Your task to perform on an android device: open app "ColorNote Notepad Notes" (install if not already installed) and go to login screen Image 0: 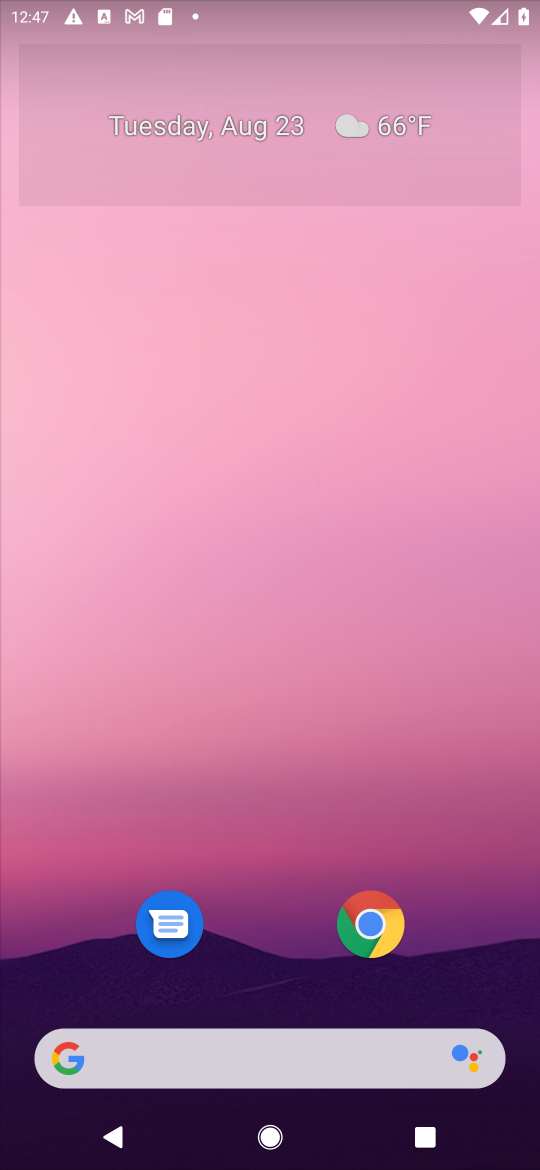
Step 0: press home button
Your task to perform on an android device: open app "ColorNote Notepad Notes" (install if not already installed) and go to login screen Image 1: 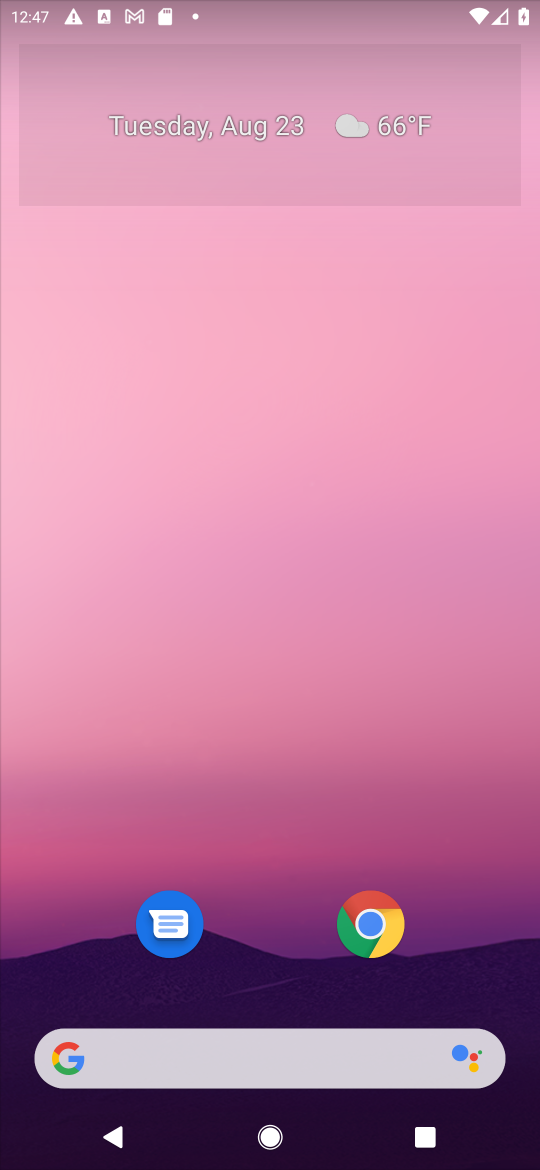
Step 1: drag from (455, 971) to (426, 155)
Your task to perform on an android device: open app "ColorNote Notepad Notes" (install if not already installed) and go to login screen Image 2: 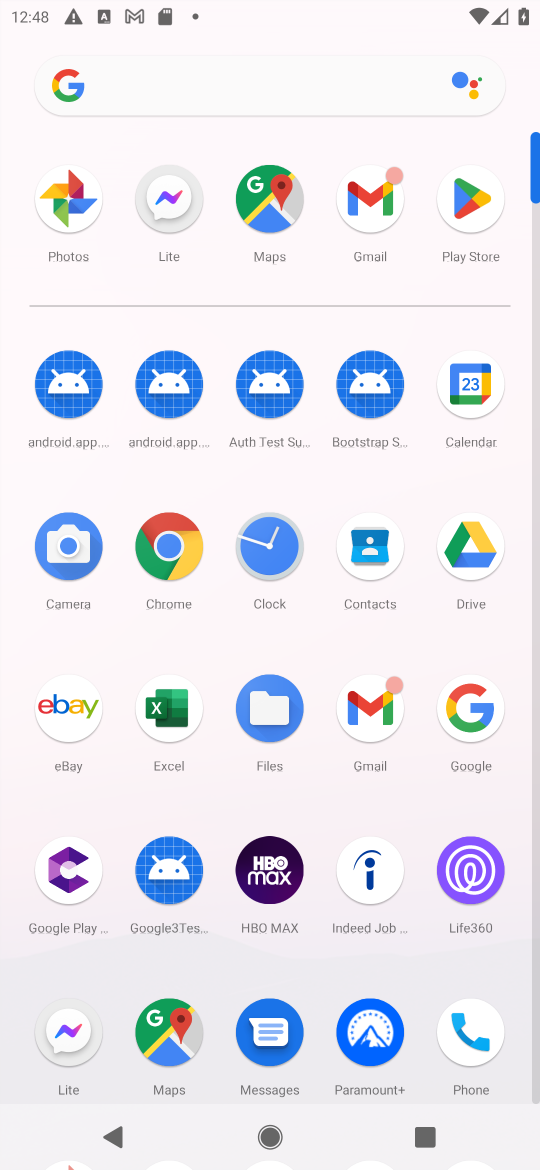
Step 2: click (471, 207)
Your task to perform on an android device: open app "ColorNote Notepad Notes" (install if not already installed) and go to login screen Image 3: 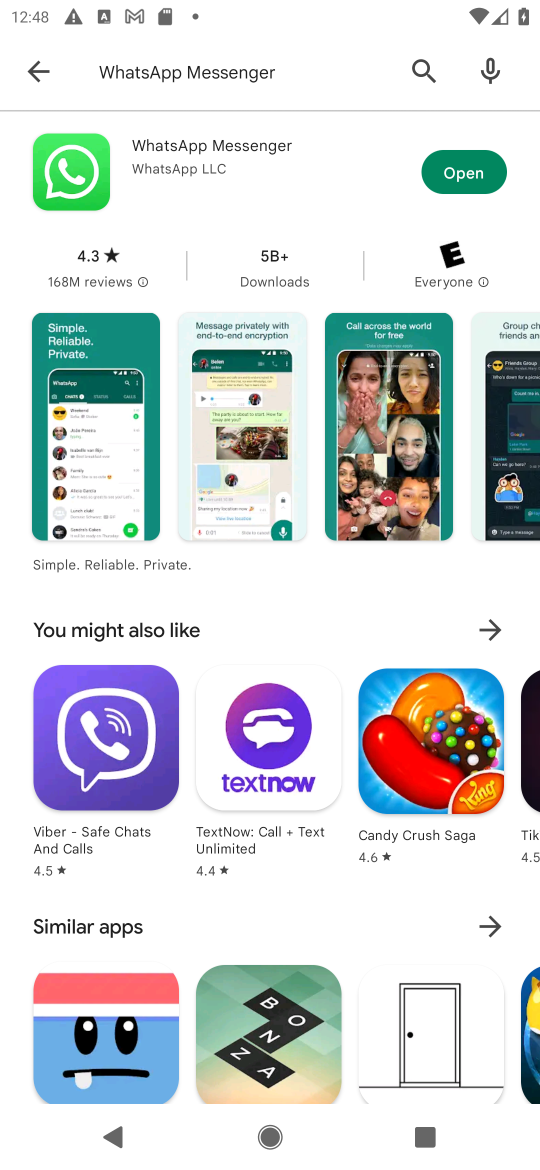
Step 3: press back button
Your task to perform on an android device: open app "ColorNote Notepad Notes" (install if not already installed) and go to login screen Image 4: 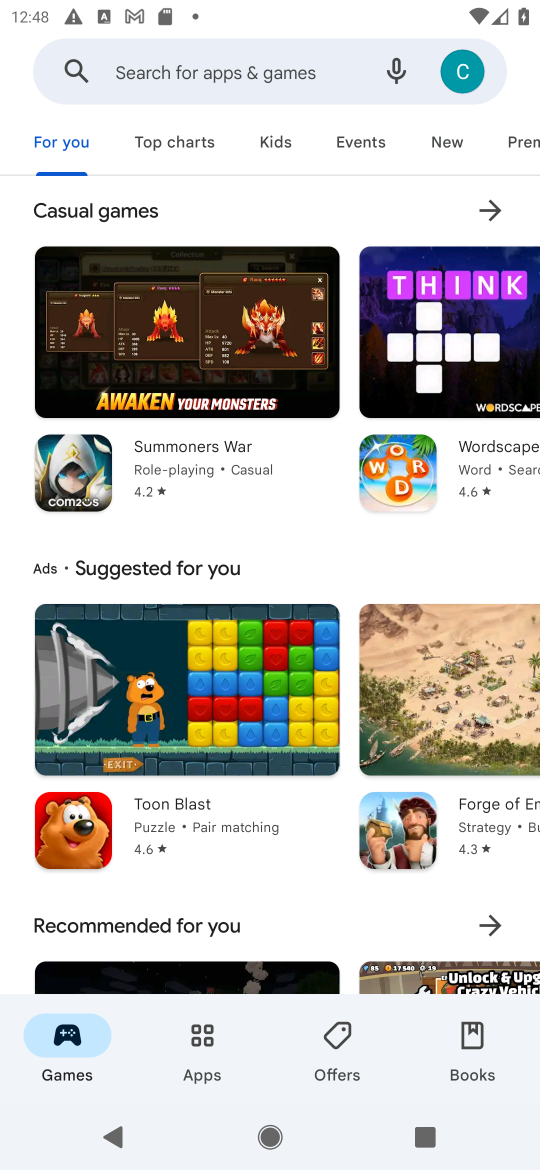
Step 4: click (234, 65)
Your task to perform on an android device: open app "ColorNote Notepad Notes" (install if not already installed) and go to login screen Image 5: 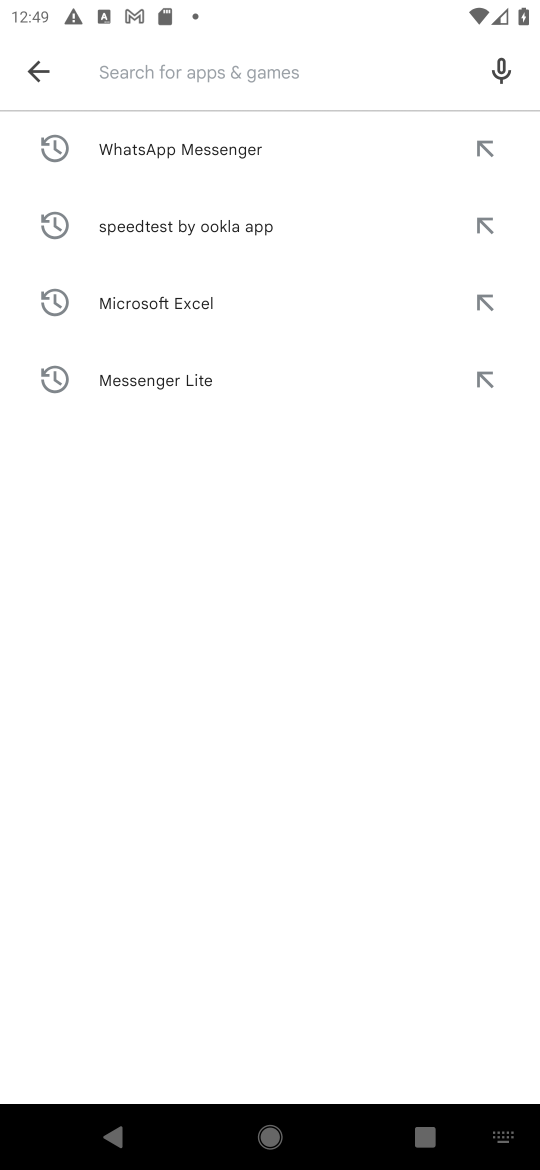
Step 5: press enter
Your task to perform on an android device: open app "ColorNote Notepad Notes" (install if not already installed) and go to login screen Image 6: 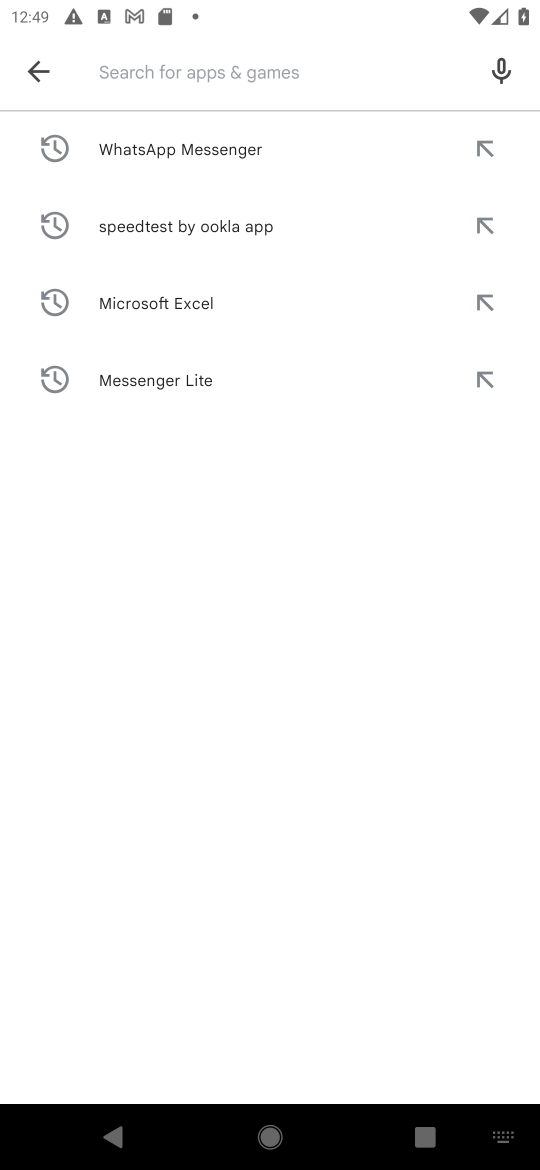
Step 6: type "ColorNote Notepad Notes"
Your task to perform on an android device: open app "ColorNote Notepad Notes" (install if not already installed) and go to login screen Image 7: 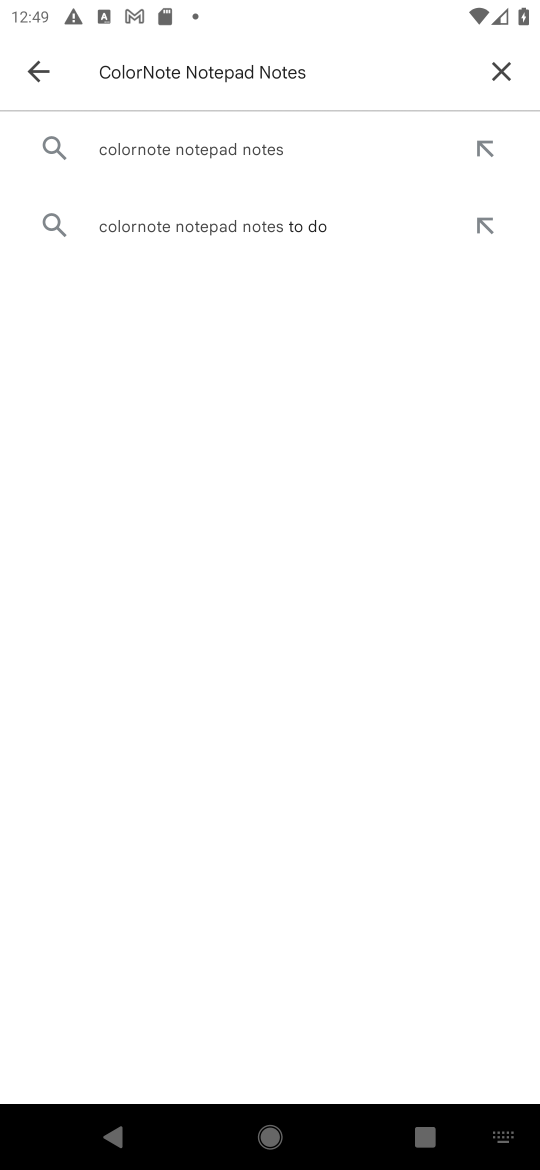
Step 7: click (229, 144)
Your task to perform on an android device: open app "ColorNote Notepad Notes" (install if not already installed) and go to login screen Image 8: 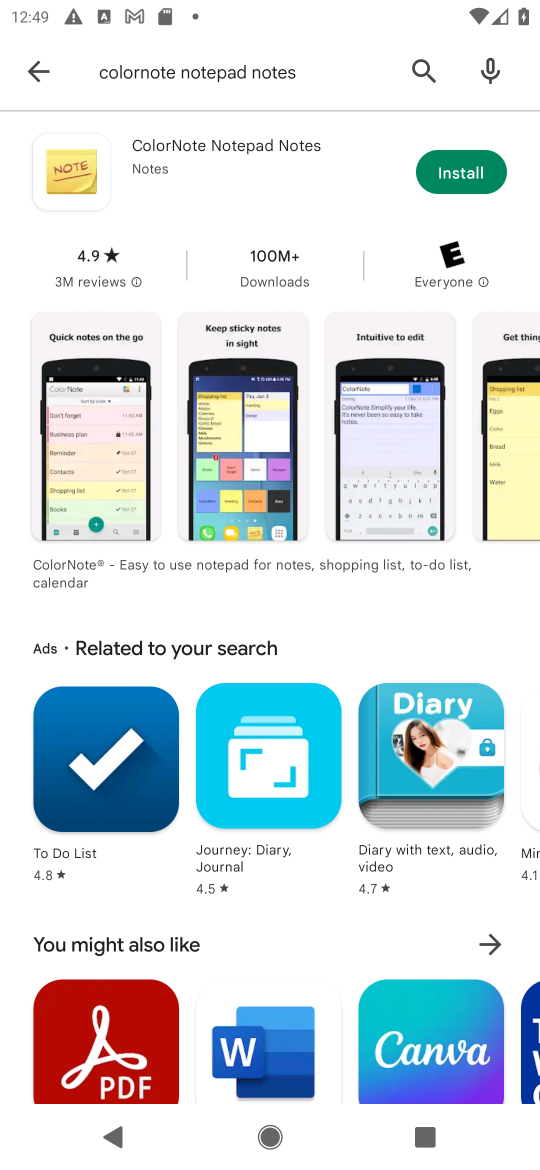
Step 8: click (453, 173)
Your task to perform on an android device: open app "ColorNote Notepad Notes" (install if not already installed) and go to login screen Image 9: 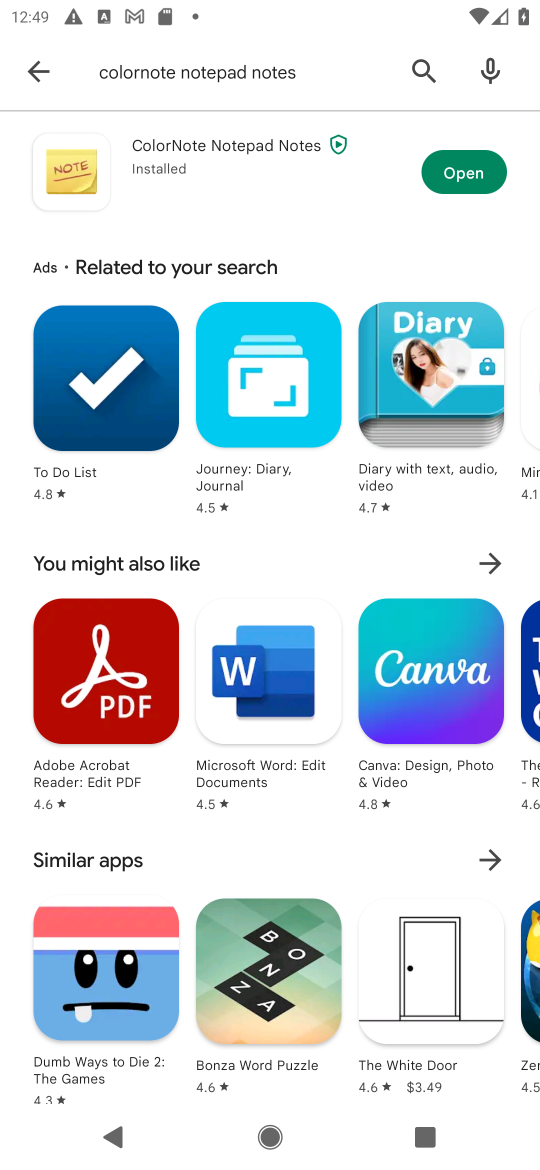
Step 9: click (459, 171)
Your task to perform on an android device: open app "ColorNote Notepad Notes" (install if not already installed) and go to login screen Image 10: 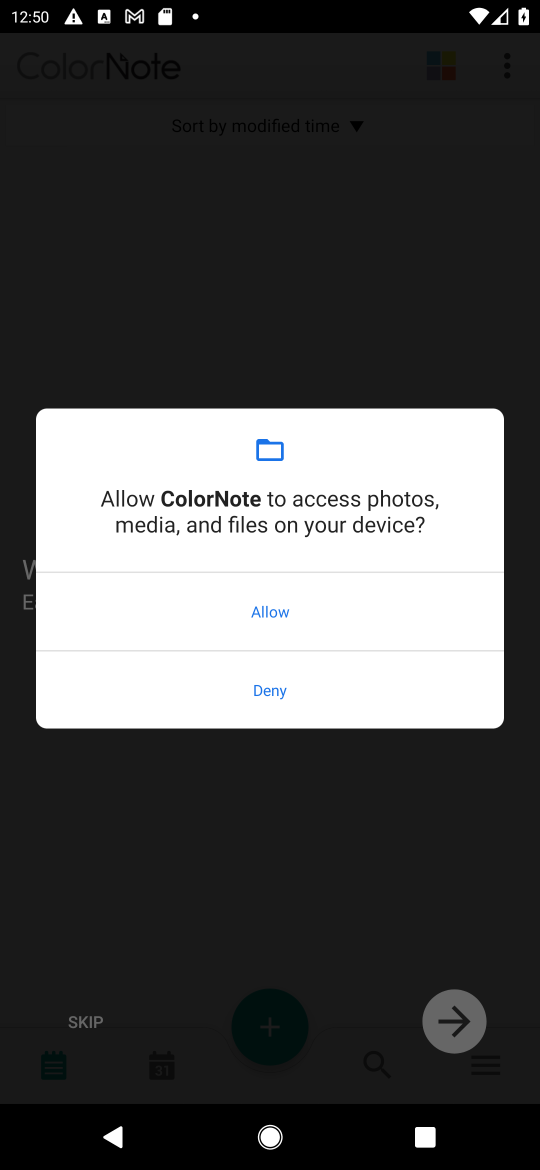
Step 10: click (320, 693)
Your task to perform on an android device: open app "ColorNote Notepad Notes" (install if not already installed) and go to login screen Image 11: 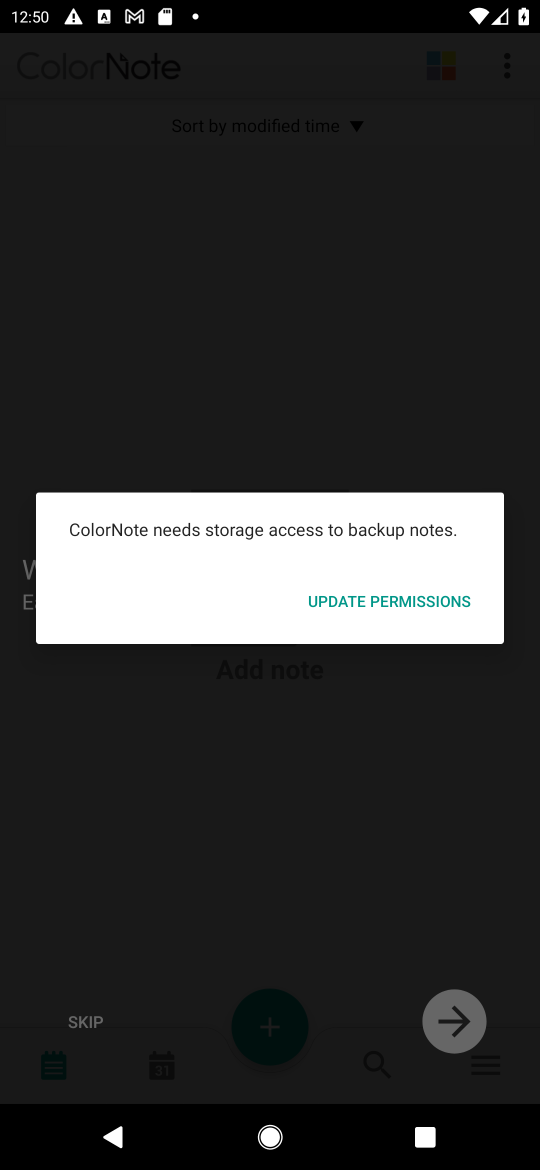
Step 11: click (416, 593)
Your task to perform on an android device: open app "ColorNote Notepad Notes" (install if not already installed) and go to login screen Image 12: 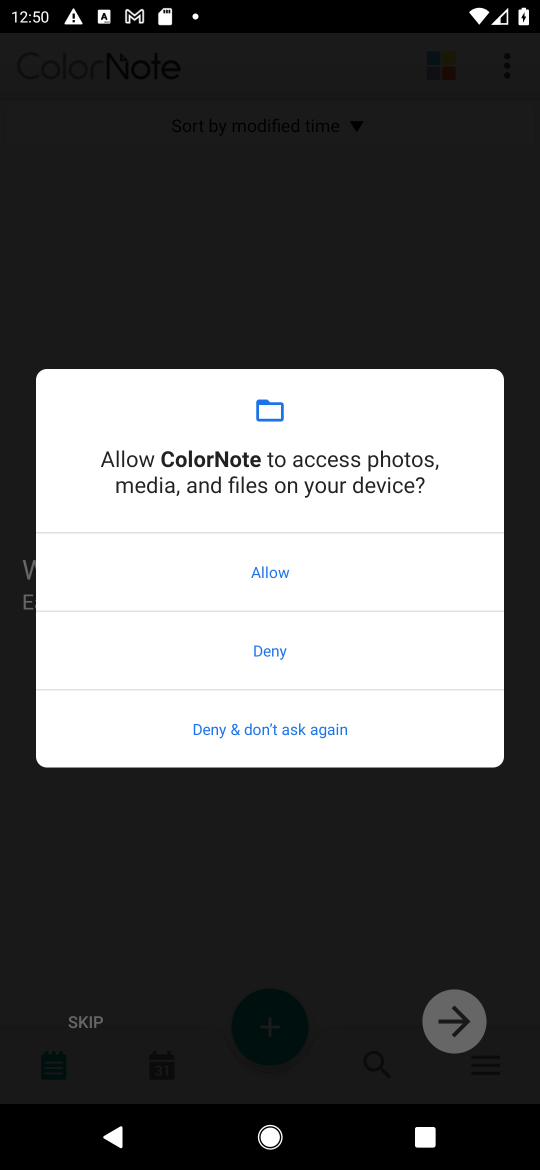
Step 12: click (346, 722)
Your task to perform on an android device: open app "ColorNote Notepad Notes" (install if not already installed) and go to login screen Image 13: 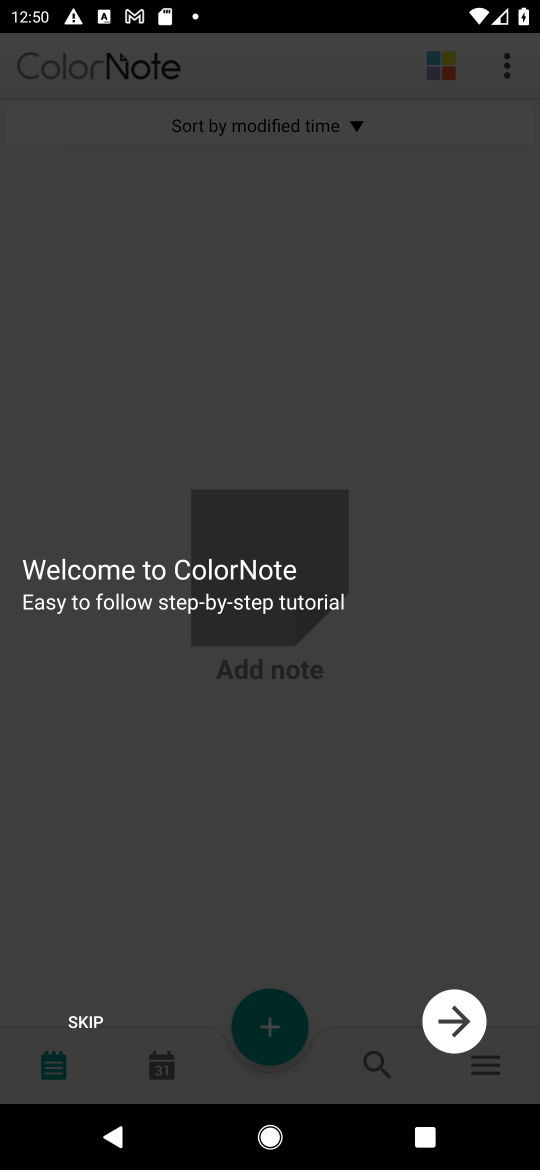
Step 13: click (459, 1030)
Your task to perform on an android device: open app "ColorNote Notepad Notes" (install if not already installed) and go to login screen Image 14: 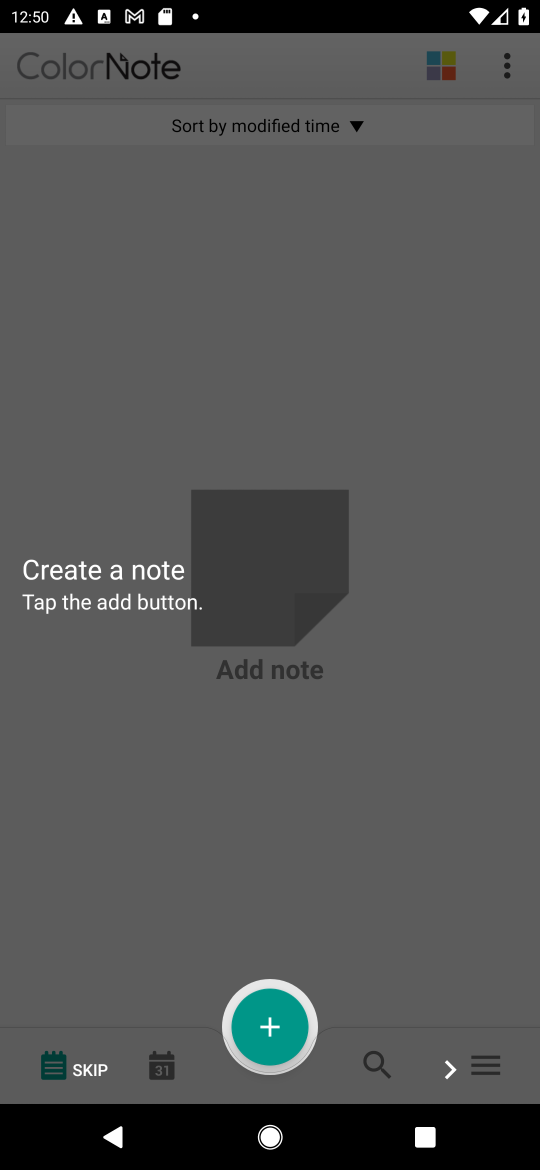
Step 14: click (442, 1078)
Your task to perform on an android device: open app "ColorNote Notepad Notes" (install if not already installed) and go to login screen Image 15: 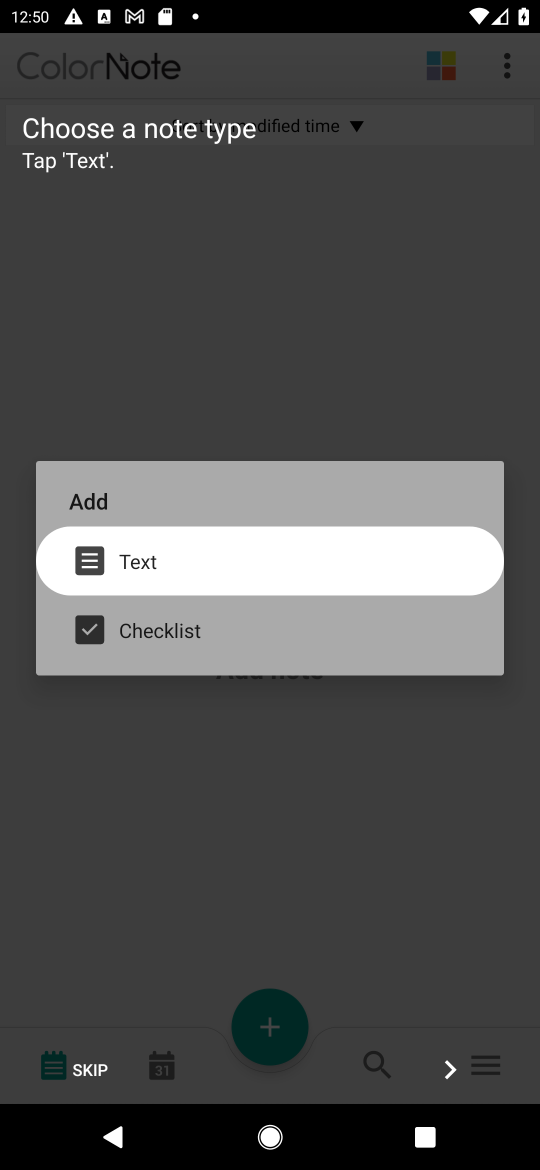
Step 15: click (291, 556)
Your task to perform on an android device: open app "ColorNote Notepad Notes" (install if not already installed) and go to login screen Image 16: 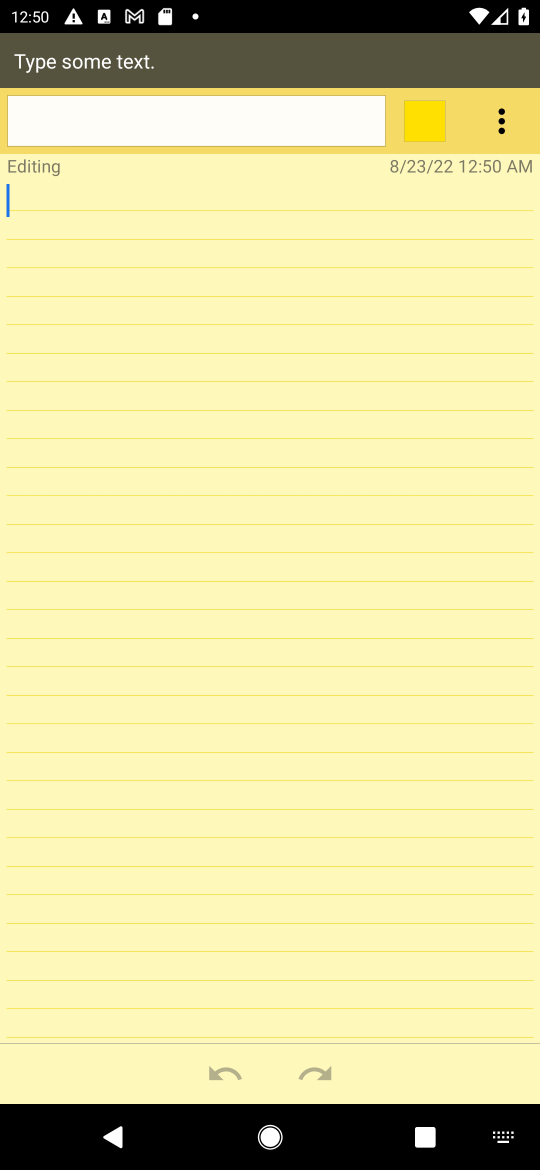
Step 16: click (502, 133)
Your task to perform on an android device: open app "ColorNote Notepad Notes" (install if not already installed) and go to login screen Image 17: 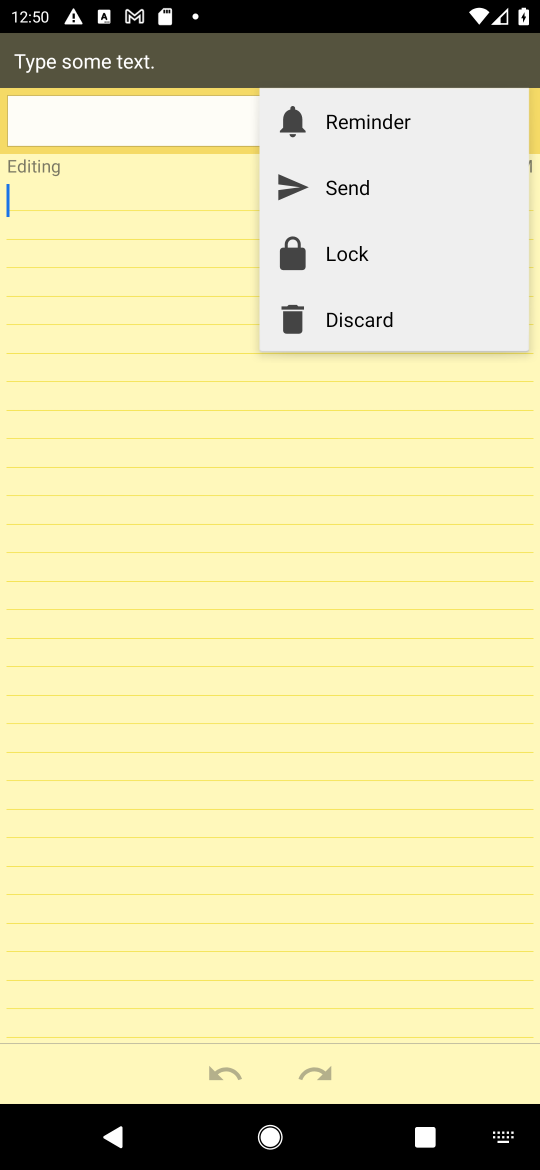
Step 17: click (373, 534)
Your task to perform on an android device: open app "ColorNote Notepad Notes" (install if not already installed) and go to login screen Image 18: 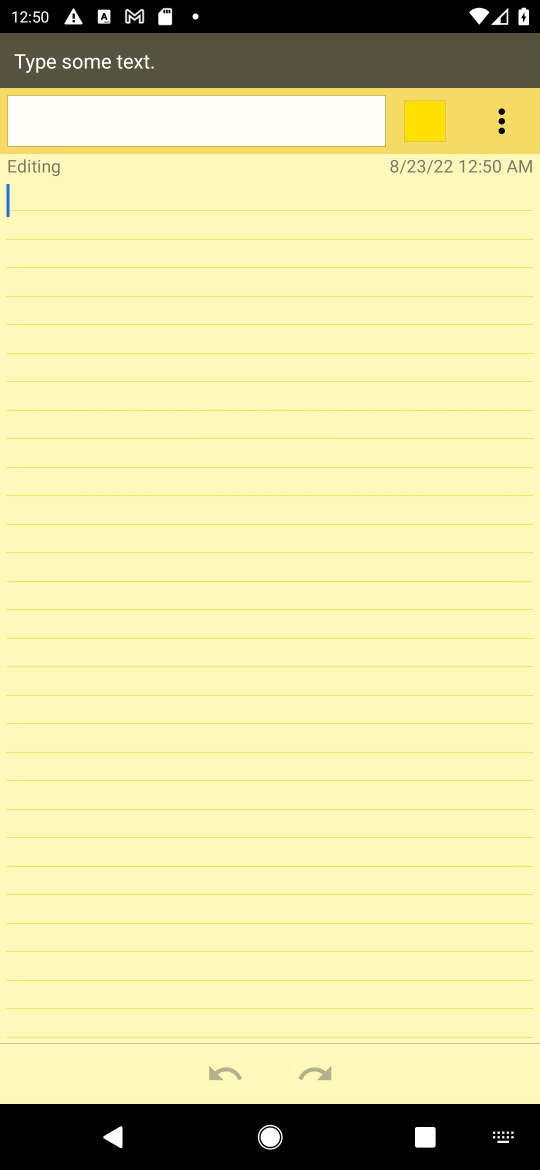
Step 18: task complete